Your task to perform on an android device: empty trash in the gmail app Image 0: 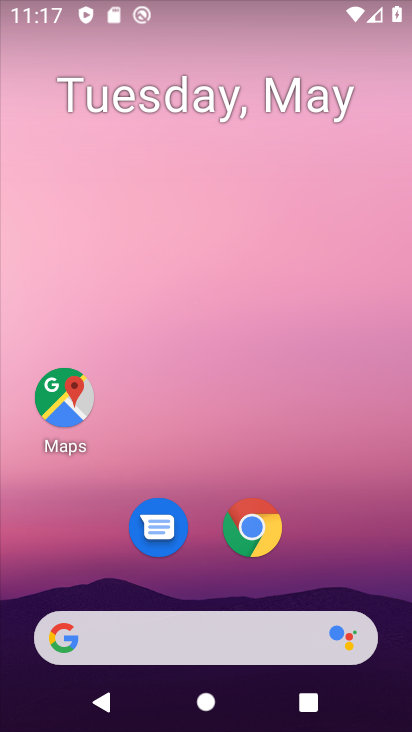
Step 0: drag from (381, 526) to (376, 238)
Your task to perform on an android device: empty trash in the gmail app Image 1: 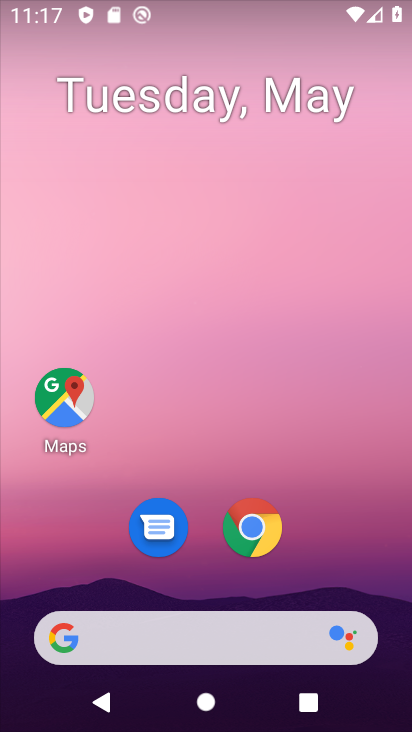
Step 1: drag from (370, 603) to (410, 9)
Your task to perform on an android device: empty trash in the gmail app Image 2: 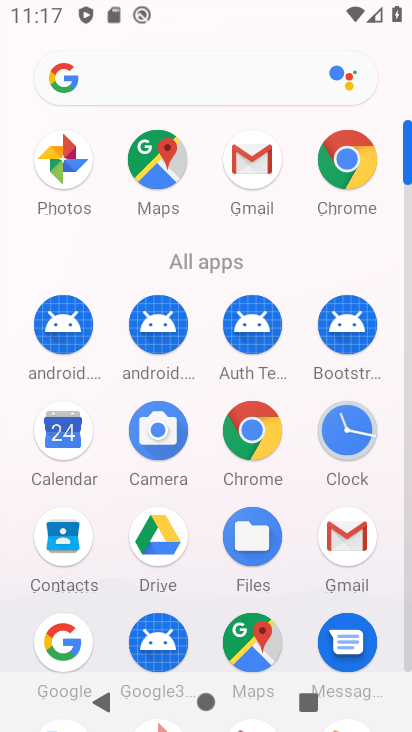
Step 2: click (258, 156)
Your task to perform on an android device: empty trash in the gmail app Image 3: 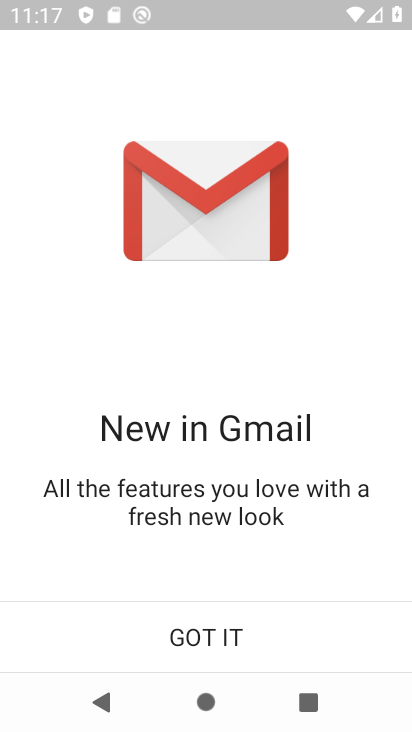
Step 3: click (177, 623)
Your task to perform on an android device: empty trash in the gmail app Image 4: 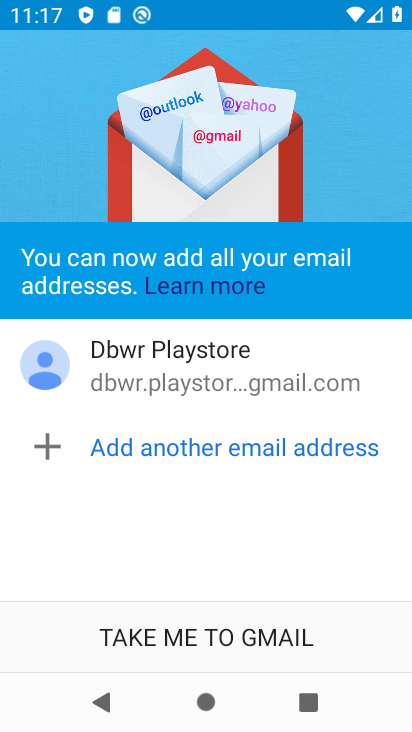
Step 4: click (155, 627)
Your task to perform on an android device: empty trash in the gmail app Image 5: 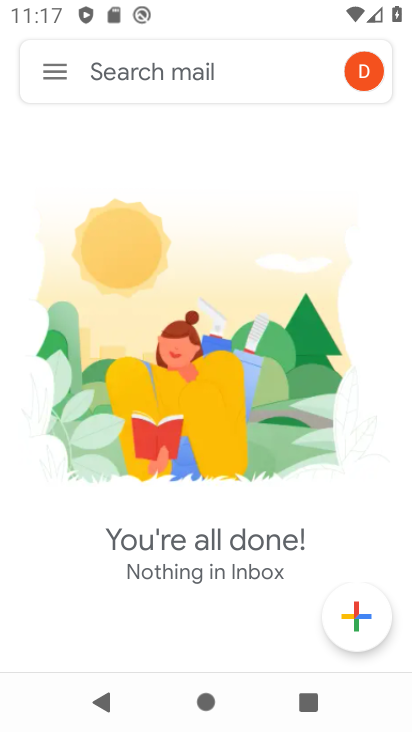
Step 5: click (66, 75)
Your task to perform on an android device: empty trash in the gmail app Image 6: 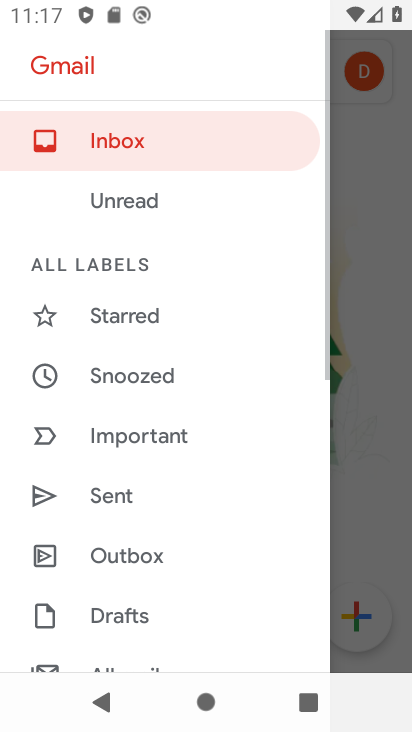
Step 6: drag from (155, 637) to (278, 220)
Your task to perform on an android device: empty trash in the gmail app Image 7: 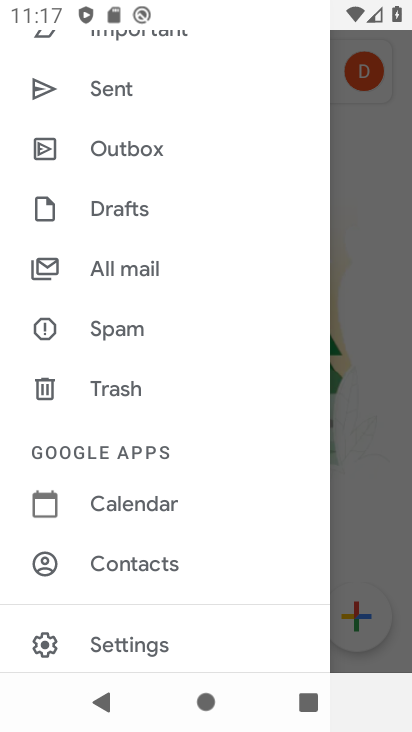
Step 7: click (152, 391)
Your task to perform on an android device: empty trash in the gmail app Image 8: 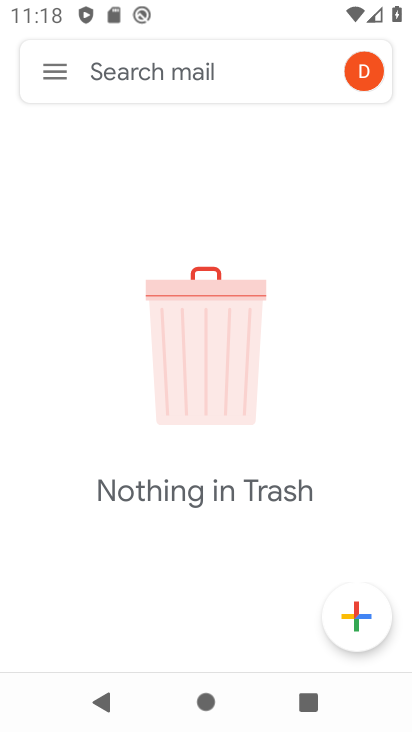
Step 8: task complete